Your task to perform on an android device: When is my next meeting? Image 0: 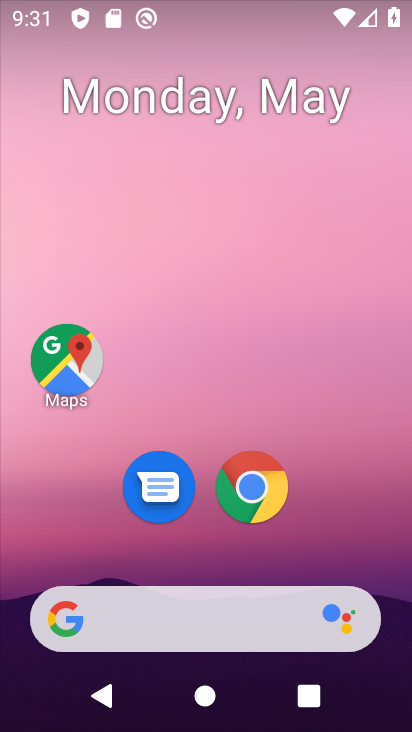
Step 0: drag from (307, 453) to (352, 14)
Your task to perform on an android device: When is my next meeting? Image 1: 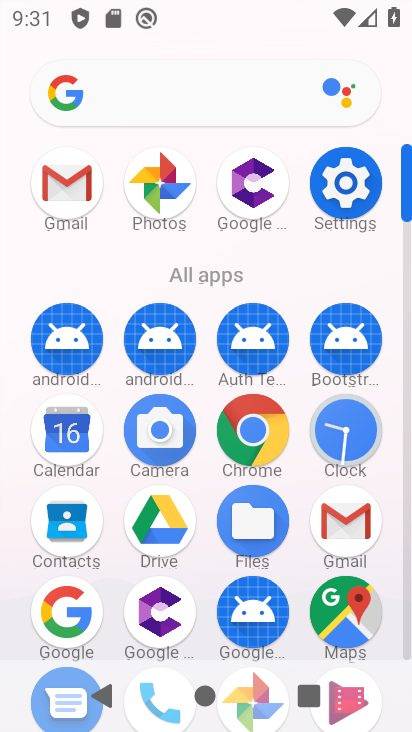
Step 1: click (56, 430)
Your task to perform on an android device: When is my next meeting? Image 2: 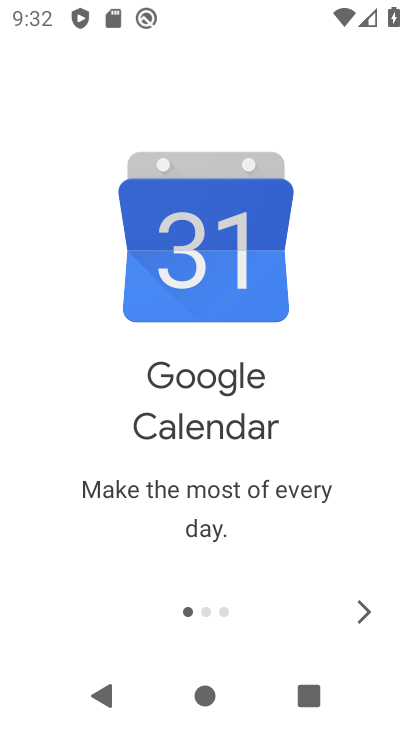
Step 2: click (371, 616)
Your task to perform on an android device: When is my next meeting? Image 3: 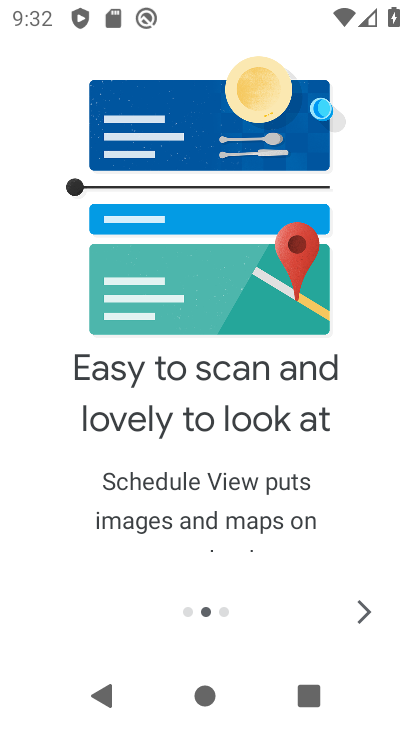
Step 3: click (369, 614)
Your task to perform on an android device: When is my next meeting? Image 4: 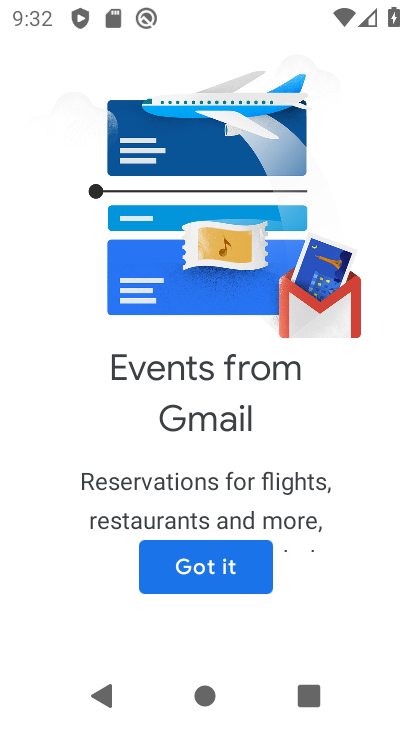
Step 4: click (368, 609)
Your task to perform on an android device: When is my next meeting? Image 5: 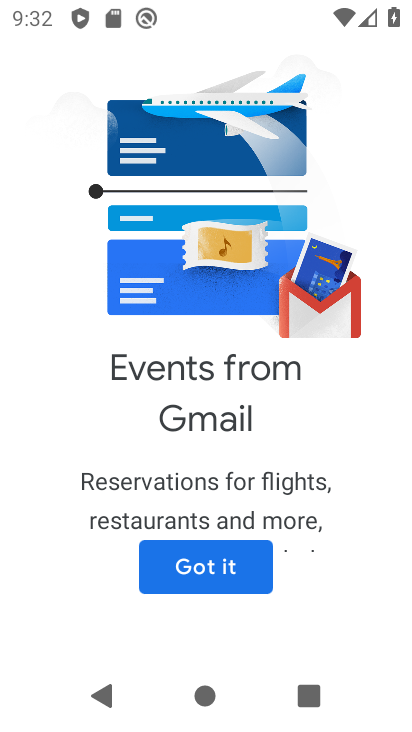
Step 5: click (195, 571)
Your task to perform on an android device: When is my next meeting? Image 6: 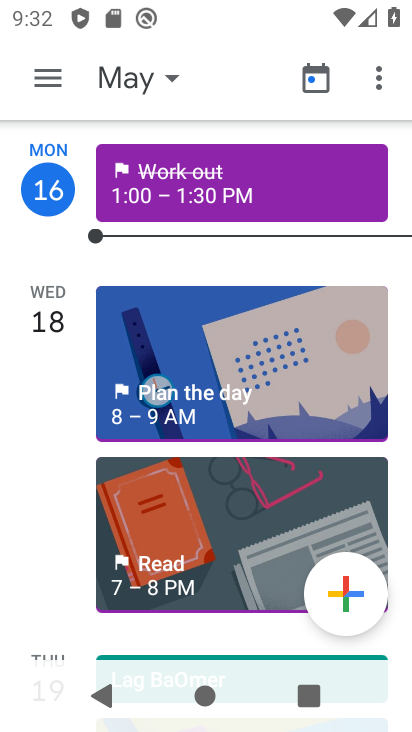
Step 6: click (134, 73)
Your task to perform on an android device: When is my next meeting? Image 7: 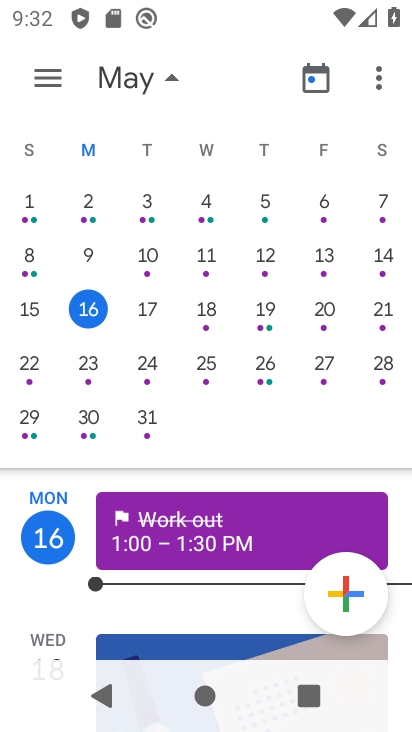
Step 7: click (90, 316)
Your task to perform on an android device: When is my next meeting? Image 8: 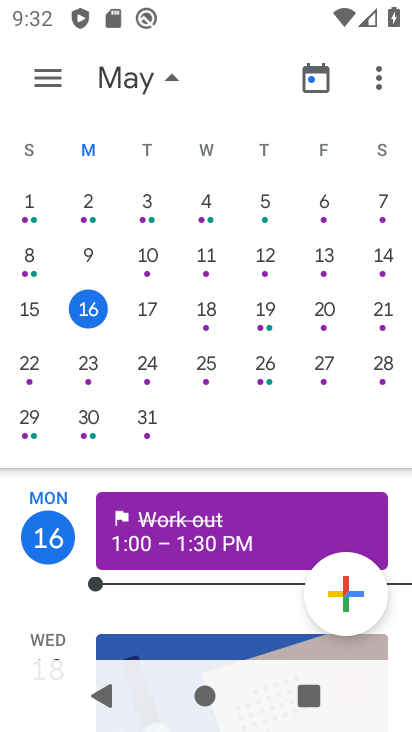
Step 8: task complete